Your task to perform on an android device: What's the weather? Image 0: 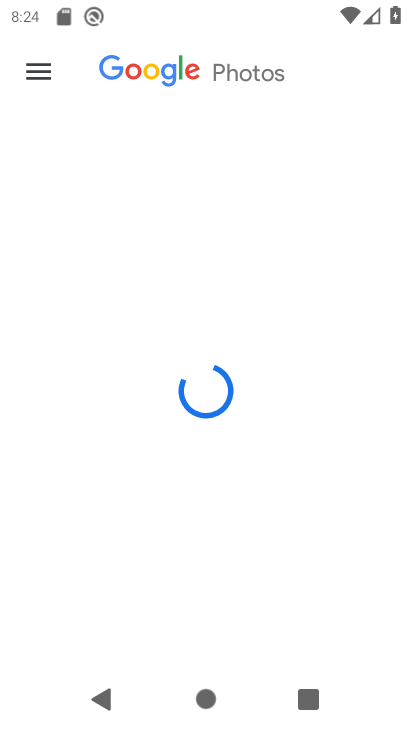
Step 0: press home button
Your task to perform on an android device: What's the weather? Image 1: 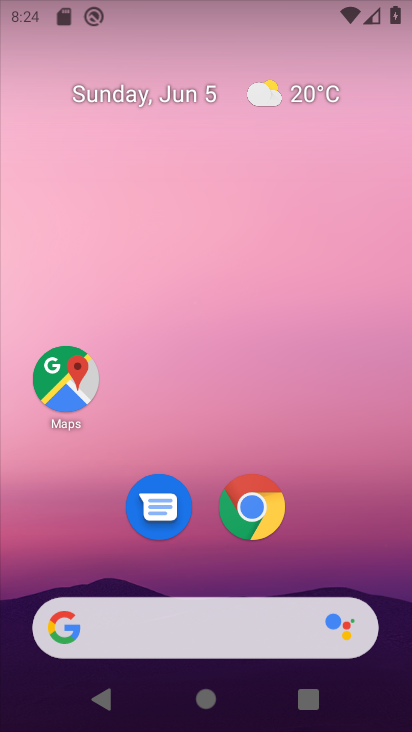
Step 1: click (151, 608)
Your task to perform on an android device: What's the weather? Image 2: 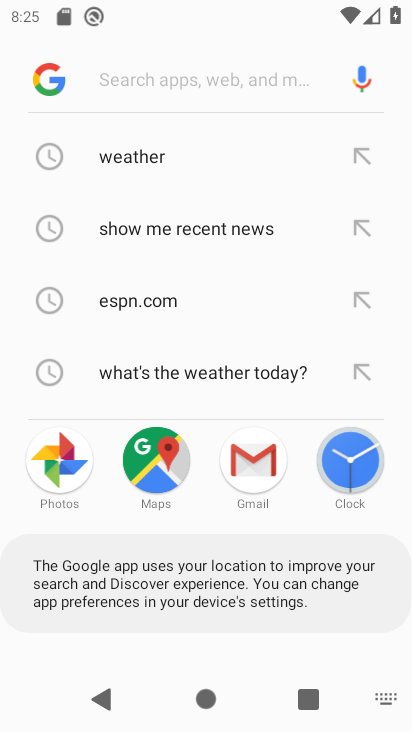
Step 2: click (169, 159)
Your task to perform on an android device: What's the weather? Image 3: 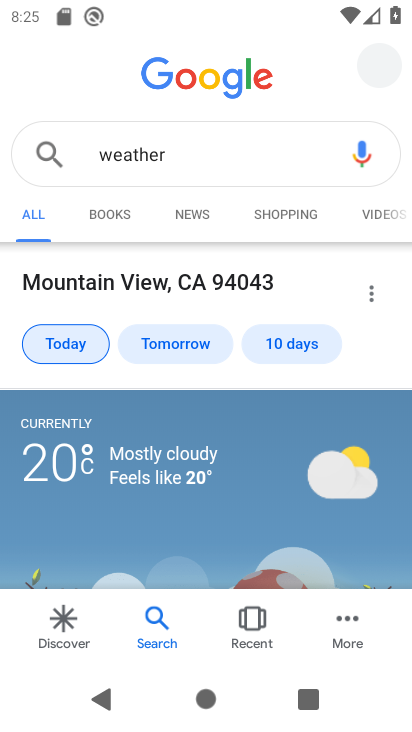
Step 3: task complete